Your task to perform on an android device: Go to wifi settings Image 0: 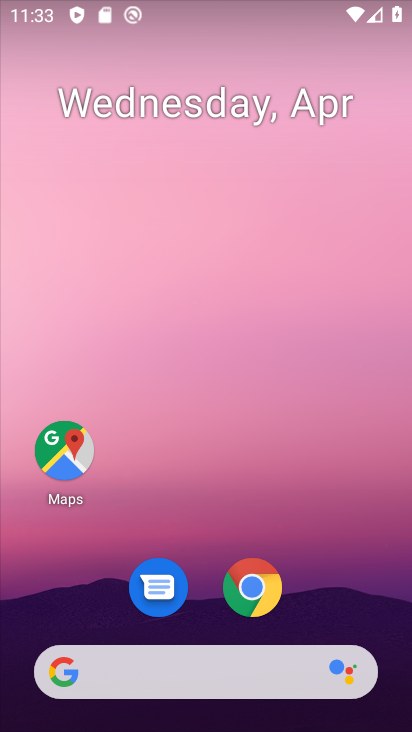
Step 0: drag from (189, 593) to (294, 67)
Your task to perform on an android device: Go to wifi settings Image 1: 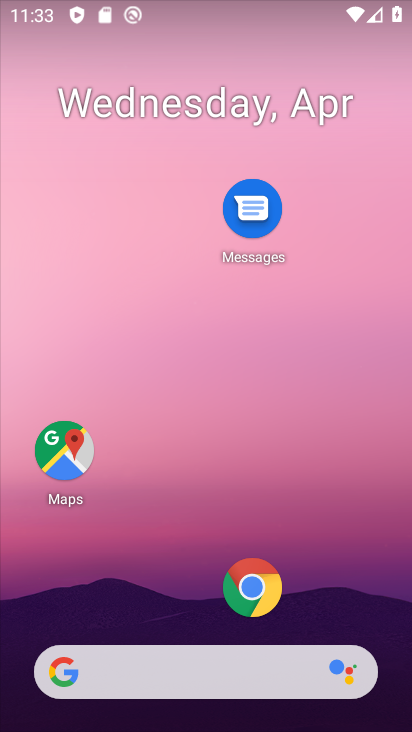
Step 1: click (160, 25)
Your task to perform on an android device: Go to wifi settings Image 2: 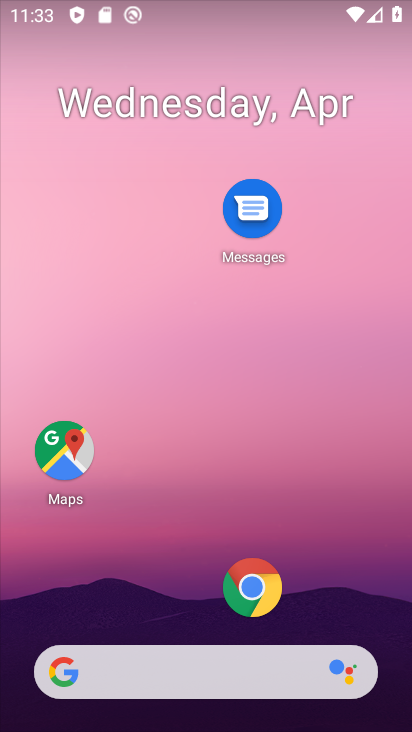
Step 2: drag from (169, 651) to (183, 130)
Your task to perform on an android device: Go to wifi settings Image 3: 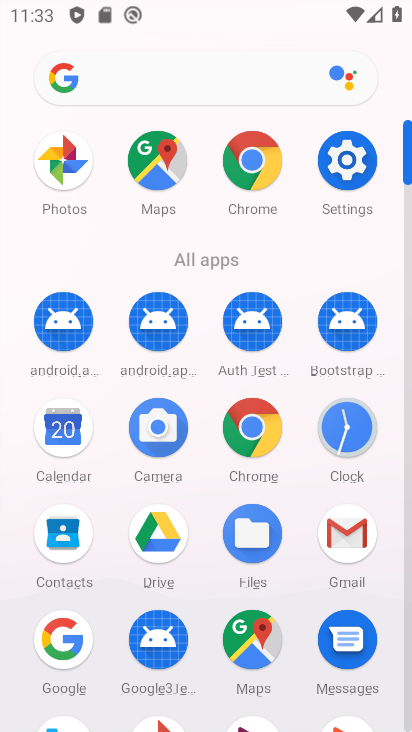
Step 3: click (357, 158)
Your task to perform on an android device: Go to wifi settings Image 4: 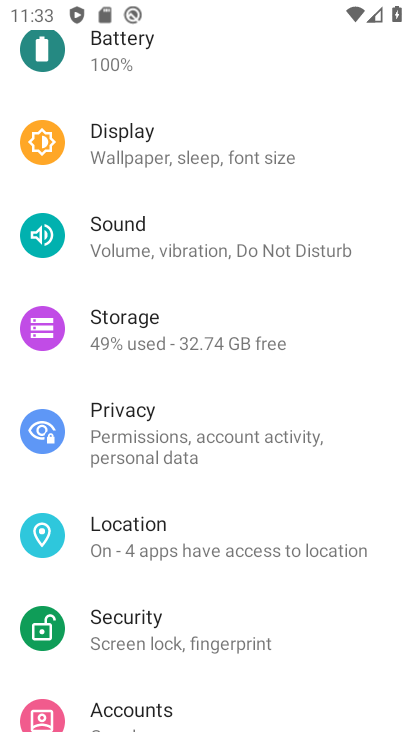
Step 4: drag from (309, 128) to (249, 604)
Your task to perform on an android device: Go to wifi settings Image 5: 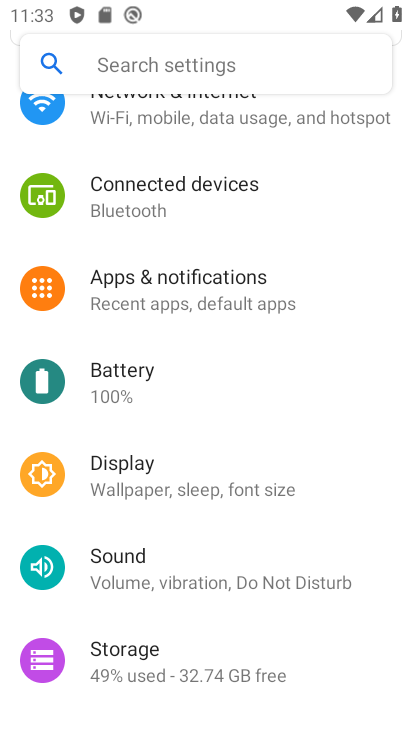
Step 5: drag from (277, 172) to (263, 473)
Your task to perform on an android device: Go to wifi settings Image 6: 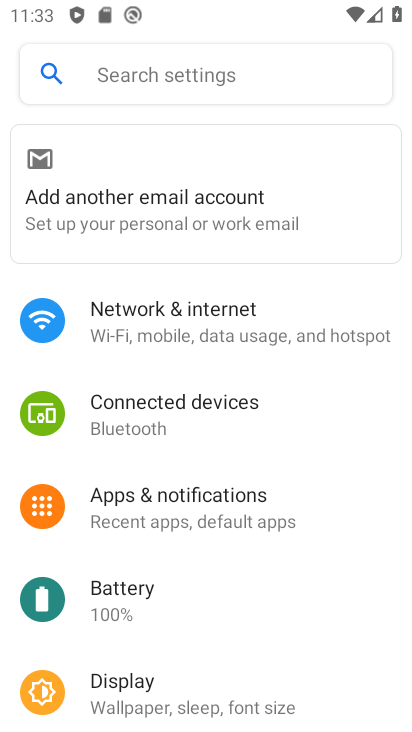
Step 6: click (276, 318)
Your task to perform on an android device: Go to wifi settings Image 7: 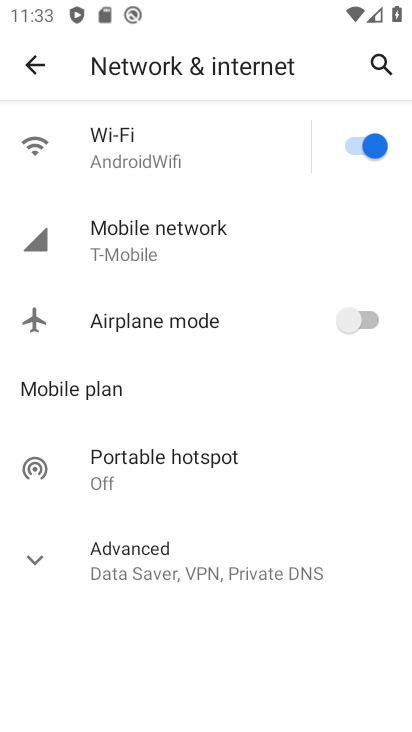
Step 7: click (182, 152)
Your task to perform on an android device: Go to wifi settings Image 8: 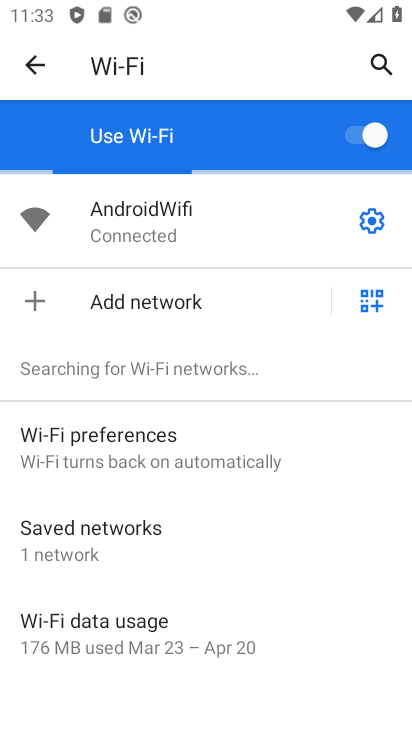
Step 8: task complete